Your task to perform on an android device: turn on showing notifications on the lock screen Image 0: 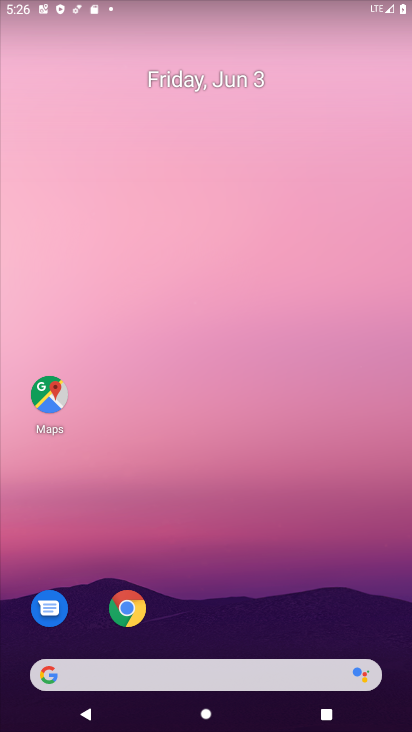
Step 0: drag from (324, 576) to (318, 91)
Your task to perform on an android device: turn on showing notifications on the lock screen Image 1: 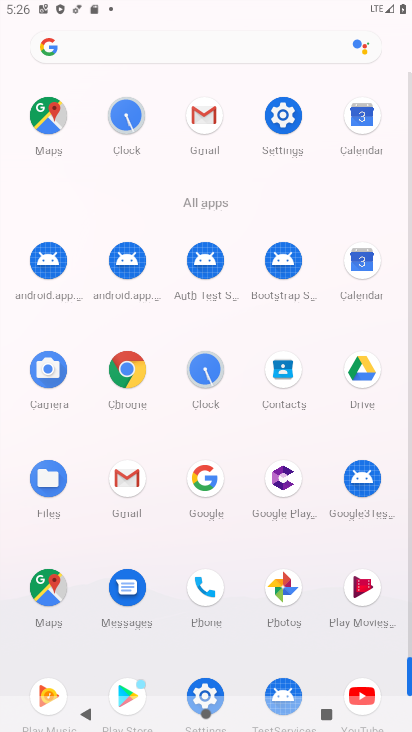
Step 1: click (281, 123)
Your task to perform on an android device: turn on showing notifications on the lock screen Image 2: 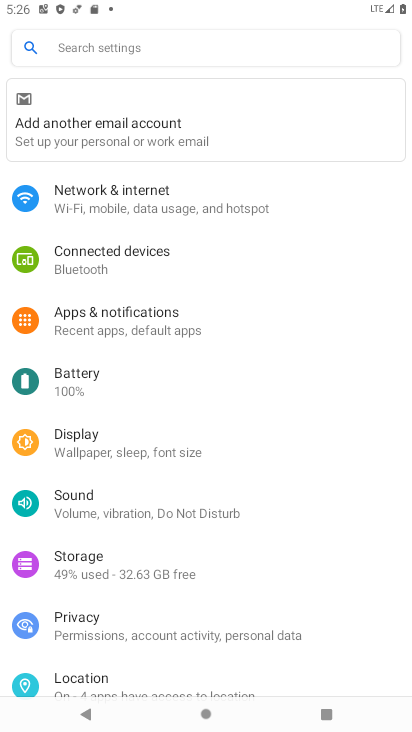
Step 2: click (162, 307)
Your task to perform on an android device: turn on showing notifications on the lock screen Image 3: 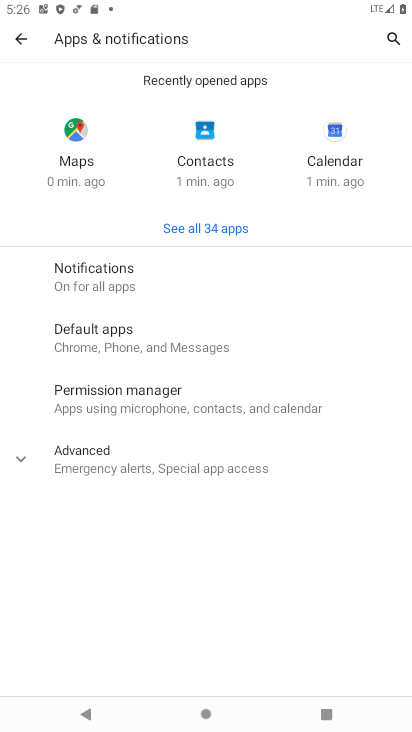
Step 3: click (124, 457)
Your task to perform on an android device: turn on showing notifications on the lock screen Image 4: 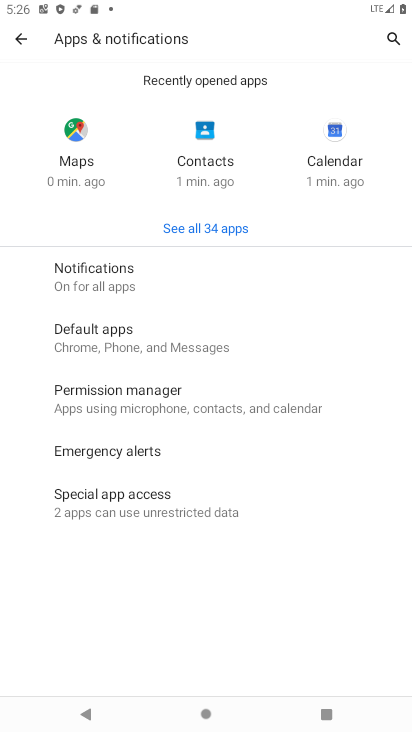
Step 4: click (78, 270)
Your task to perform on an android device: turn on showing notifications on the lock screen Image 5: 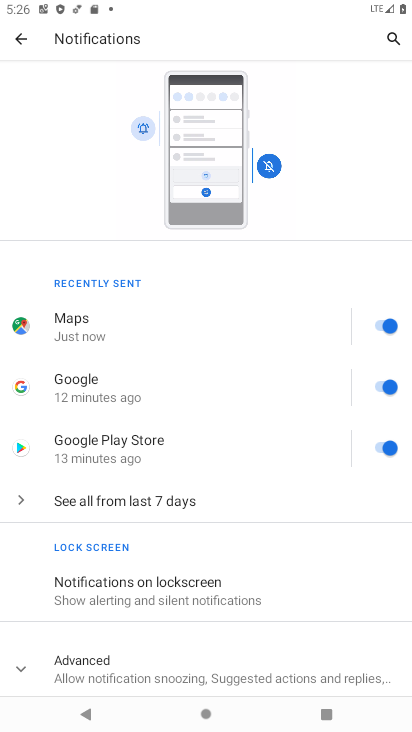
Step 5: click (92, 584)
Your task to perform on an android device: turn on showing notifications on the lock screen Image 6: 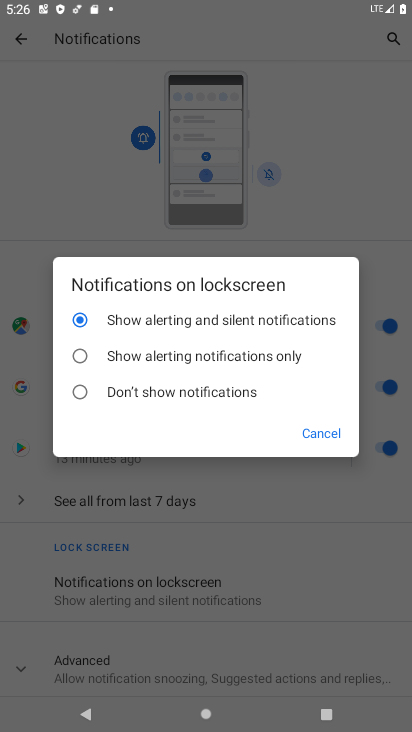
Step 6: click (88, 316)
Your task to perform on an android device: turn on showing notifications on the lock screen Image 7: 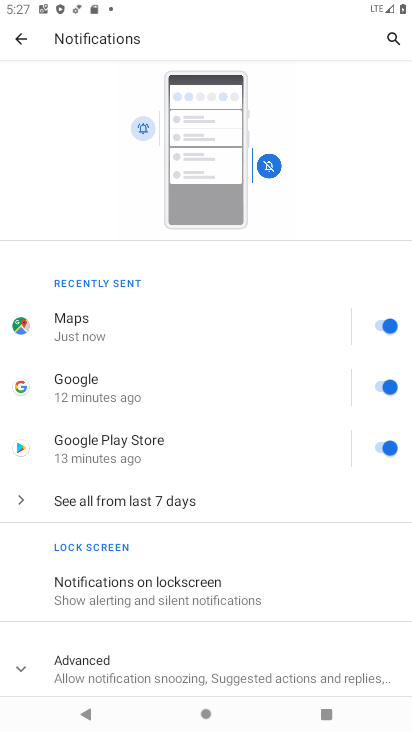
Step 7: task complete